Your task to perform on an android device: change the clock style Image 0: 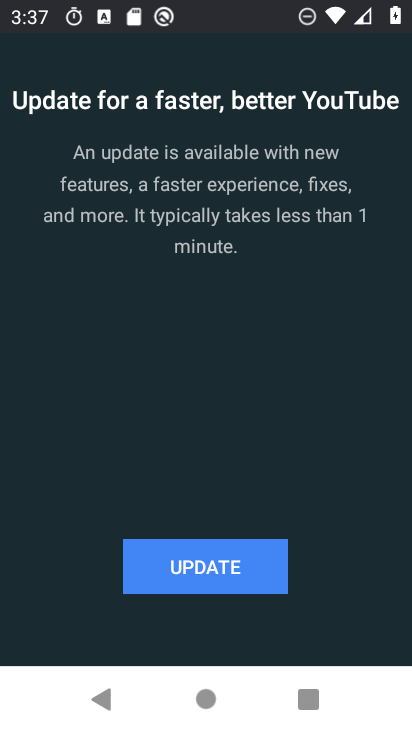
Step 0: type "    "
Your task to perform on an android device: change the clock style Image 1: 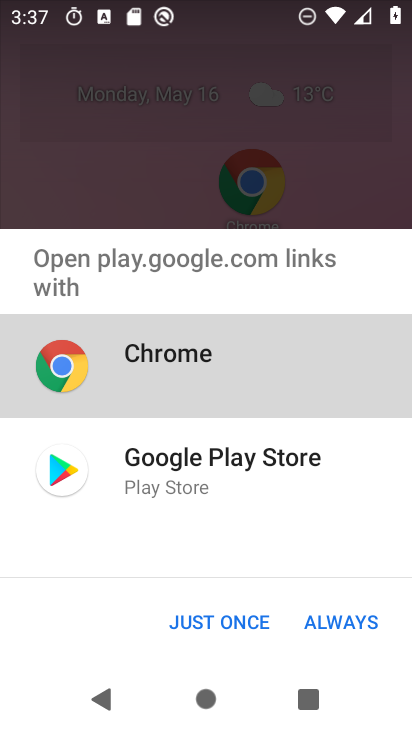
Step 1: press home button
Your task to perform on an android device: change the clock style Image 2: 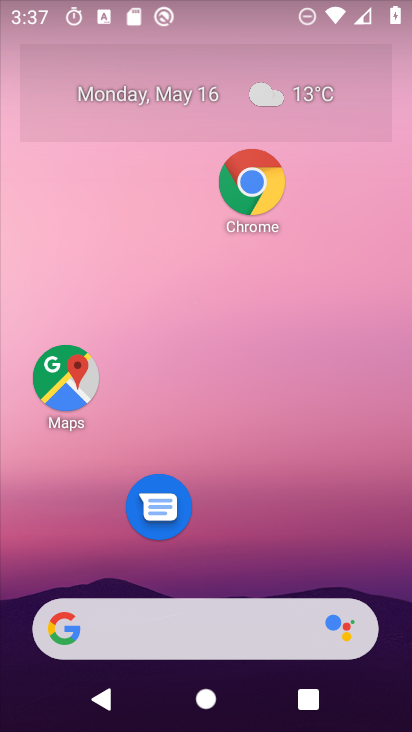
Step 2: drag from (359, 535) to (151, 222)
Your task to perform on an android device: change the clock style Image 3: 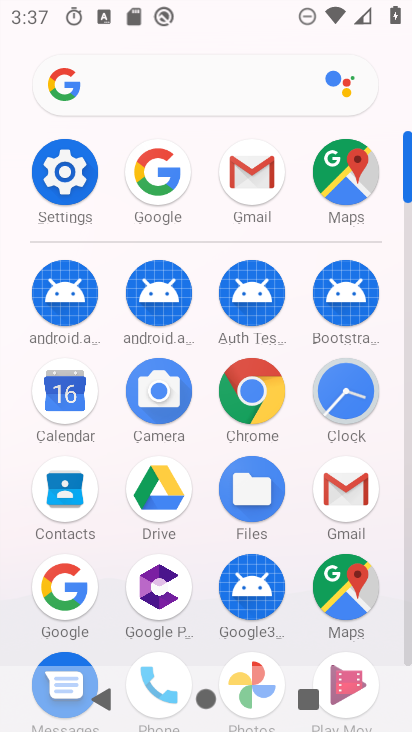
Step 3: click (350, 405)
Your task to perform on an android device: change the clock style Image 4: 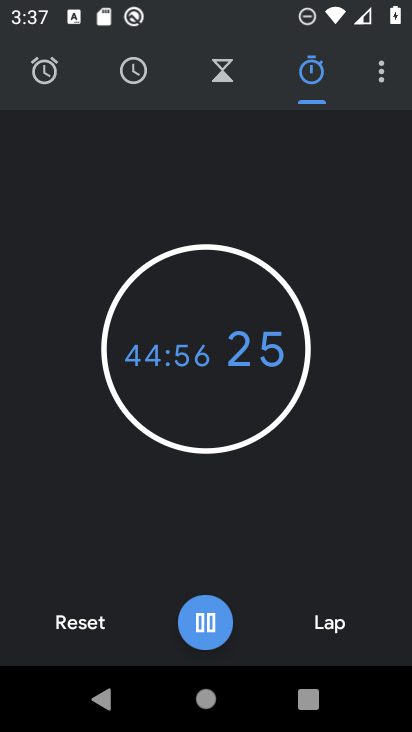
Step 4: click (388, 84)
Your task to perform on an android device: change the clock style Image 5: 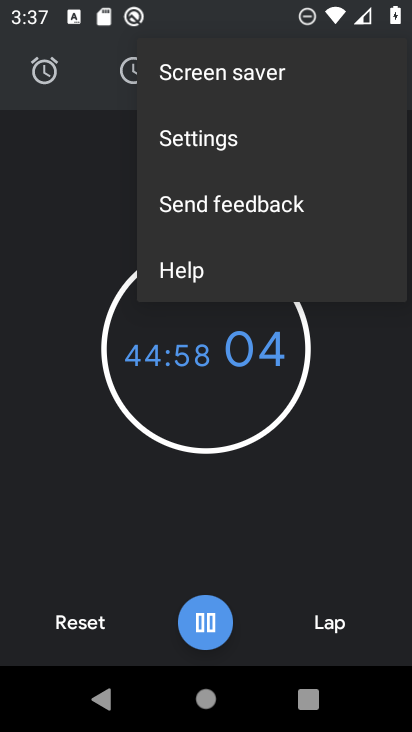
Step 5: click (251, 139)
Your task to perform on an android device: change the clock style Image 6: 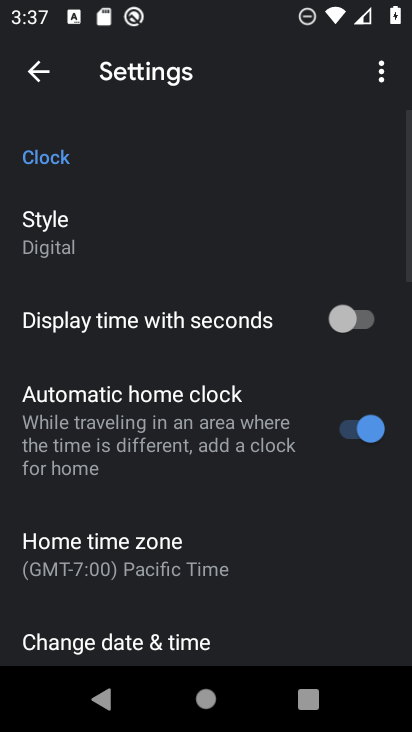
Step 6: click (192, 230)
Your task to perform on an android device: change the clock style Image 7: 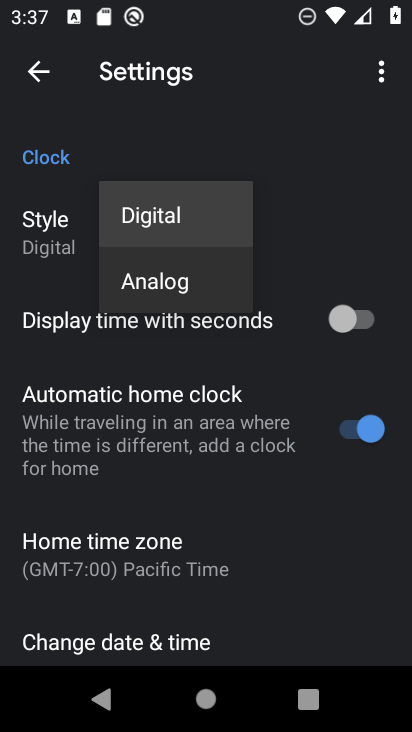
Step 7: click (200, 285)
Your task to perform on an android device: change the clock style Image 8: 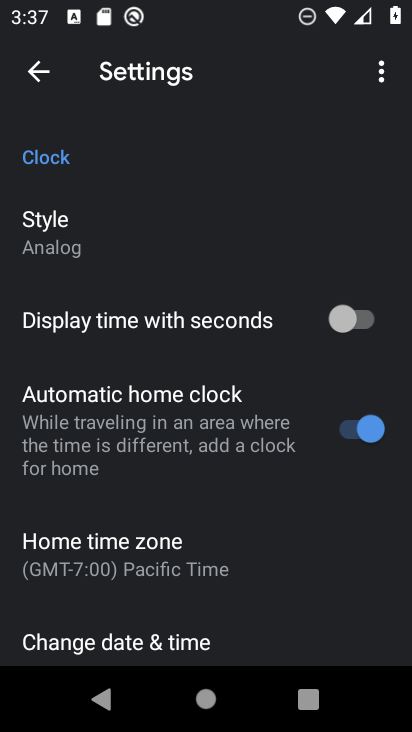
Step 8: task complete